Your task to perform on an android device: check battery use Image 0: 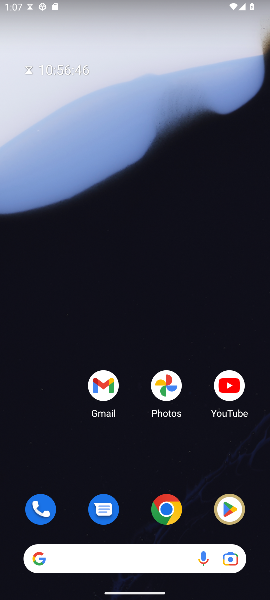
Step 0: drag from (139, 523) to (212, 146)
Your task to perform on an android device: check battery use Image 1: 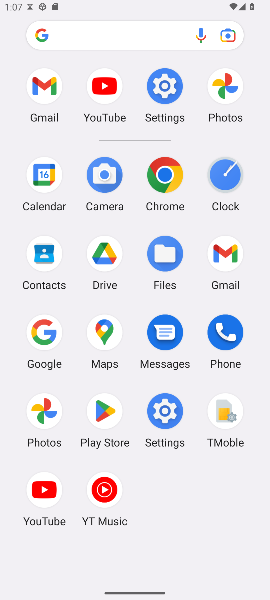
Step 1: click (168, 406)
Your task to perform on an android device: check battery use Image 2: 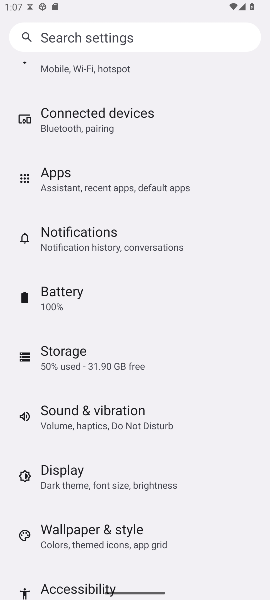
Step 2: click (66, 291)
Your task to perform on an android device: check battery use Image 3: 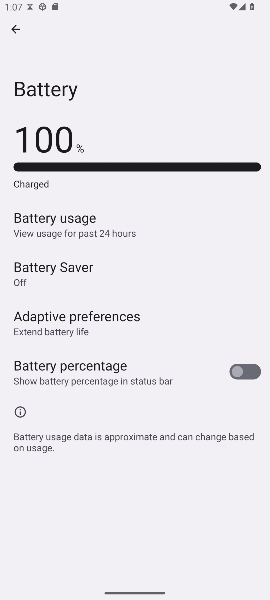
Step 3: click (53, 229)
Your task to perform on an android device: check battery use Image 4: 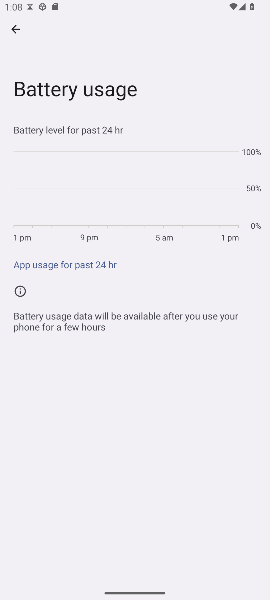
Step 4: task complete